Your task to perform on an android device: change text size in settings app Image 0: 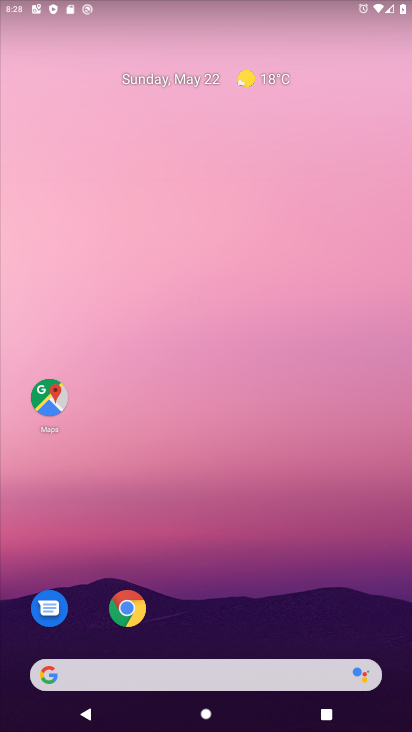
Step 0: drag from (226, 697) to (211, 61)
Your task to perform on an android device: change text size in settings app Image 1: 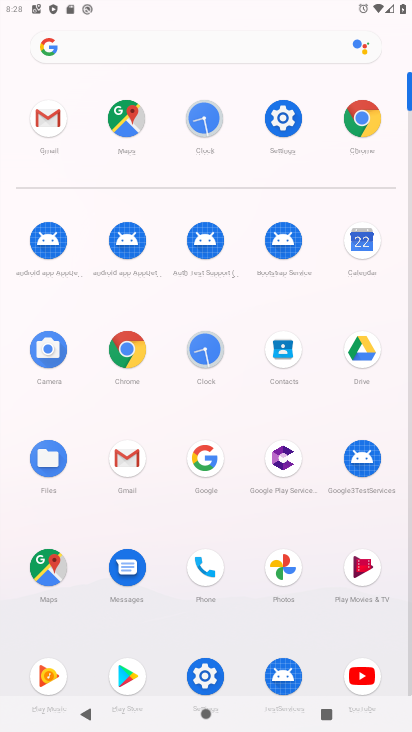
Step 1: click (276, 117)
Your task to perform on an android device: change text size in settings app Image 2: 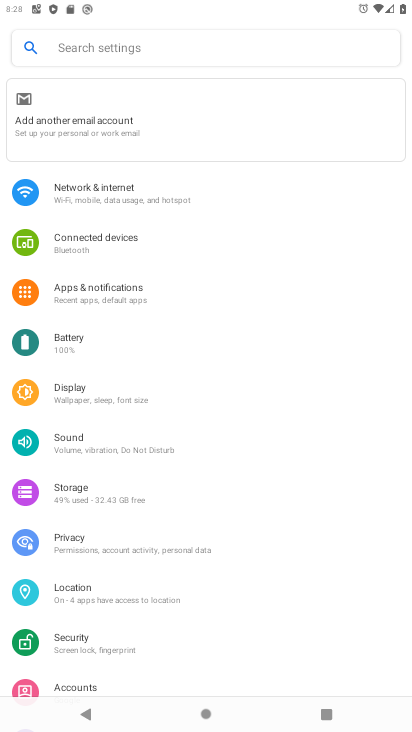
Step 2: click (110, 406)
Your task to perform on an android device: change text size in settings app Image 3: 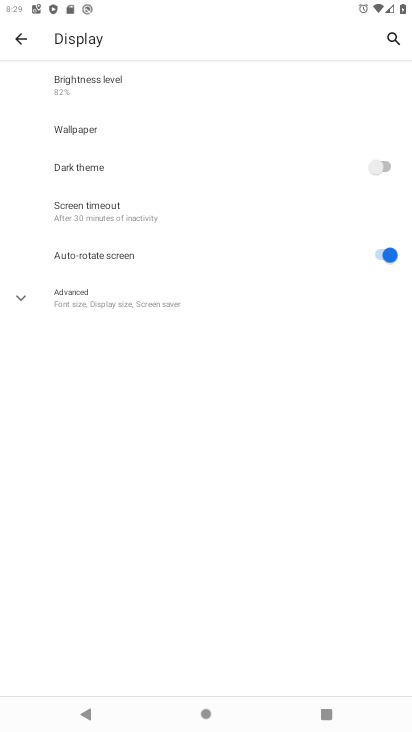
Step 3: click (130, 302)
Your task to perform on an android device: change text size in settings app Image 4: 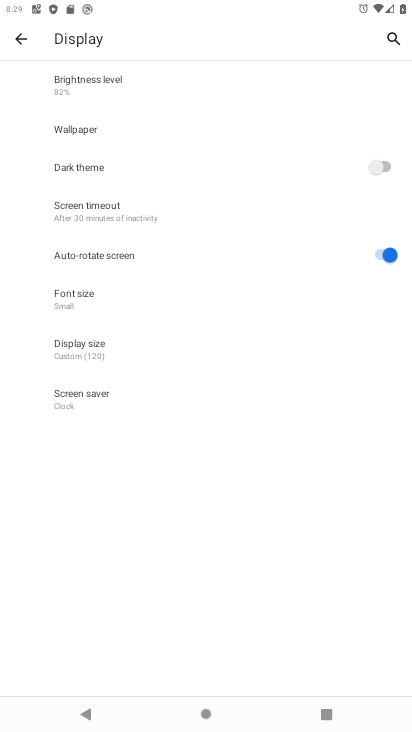
Step 4: click (76, 298)
Your task to perform on an android device: change text size in settings app Image 5: 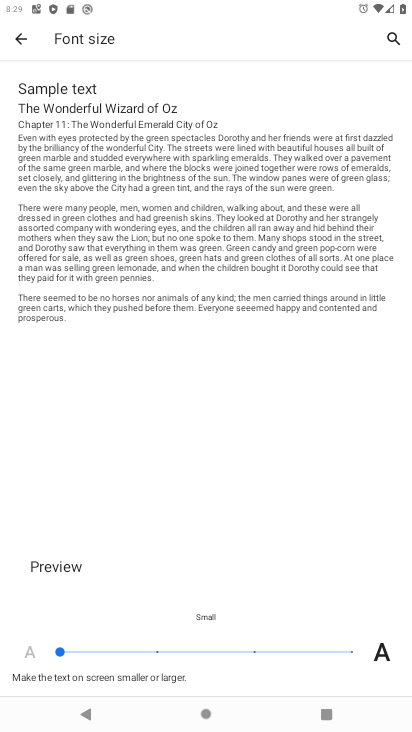
Step 5: click (155, 653)
Your task to perform on an android device: change text size in settings app Image 6: 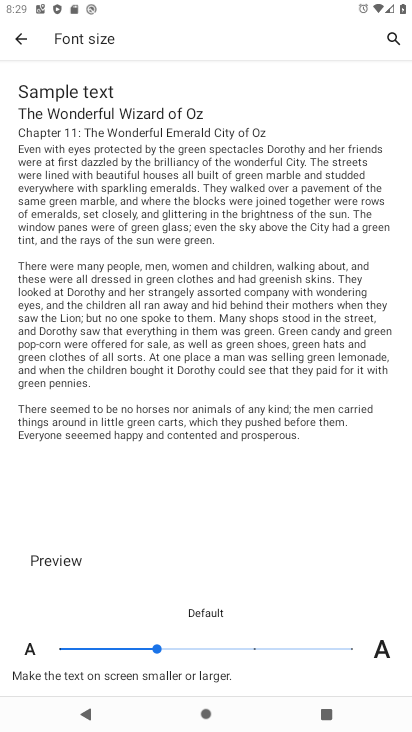
Step 6: task complete